Your task to perform on an android device: install app "DuckDuckGo Privacy Browser" Image 0: 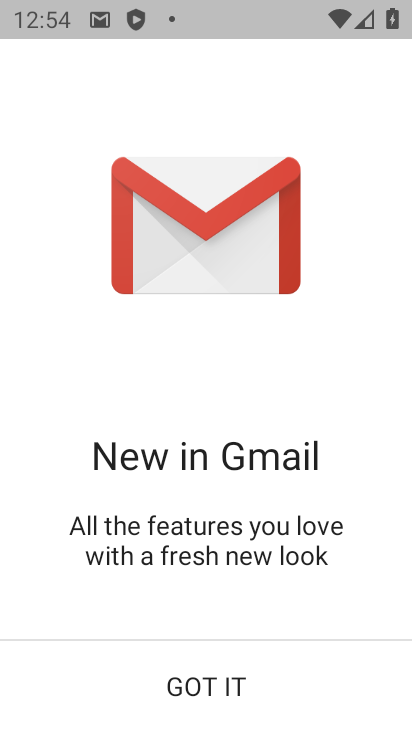
Step 0: press home button
Your task to perform on an android device: install app "DuckDuckGo Privacy Browser" Image 1: 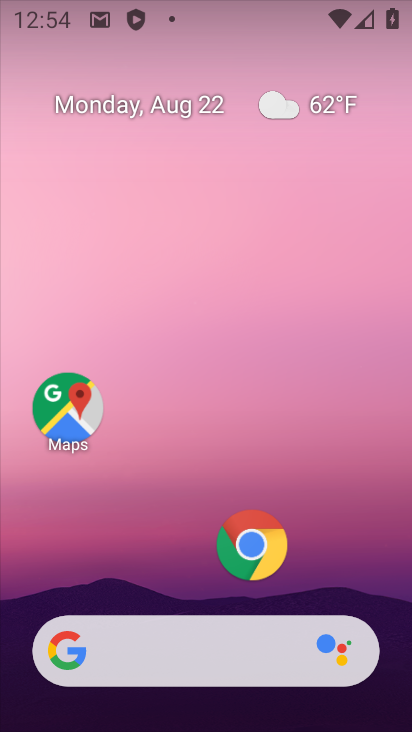
Step 1: drag from (123, 494) to (250, 29)
Your task to perform on an android device: install app "DuckDuckGo Privacy Browser" Image 2: 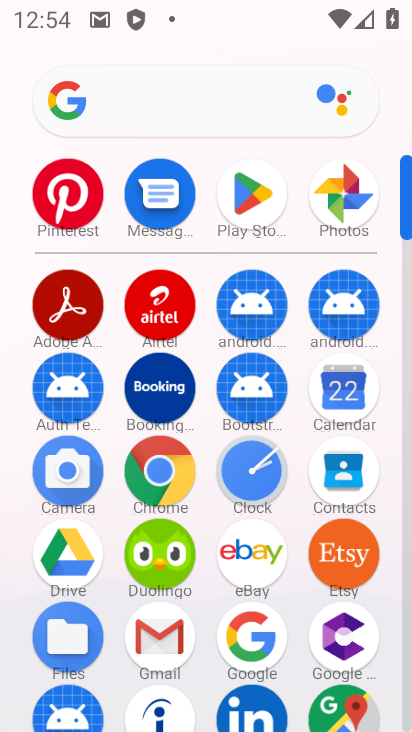
Step 2: click (253, 194)
Your task to perform on an android device: install app "DuckDuckGo Privacy Browser" Image 3: 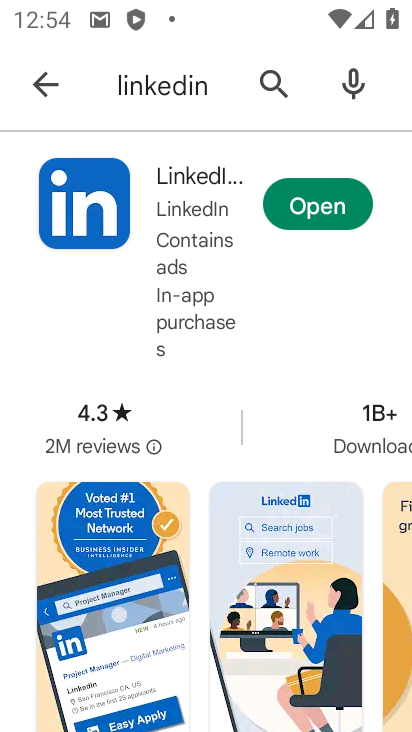
Step 3: click (265, 86)
Your task to perform on an android device: install app "DuckDuckGo Privacy Browser" Image 4: 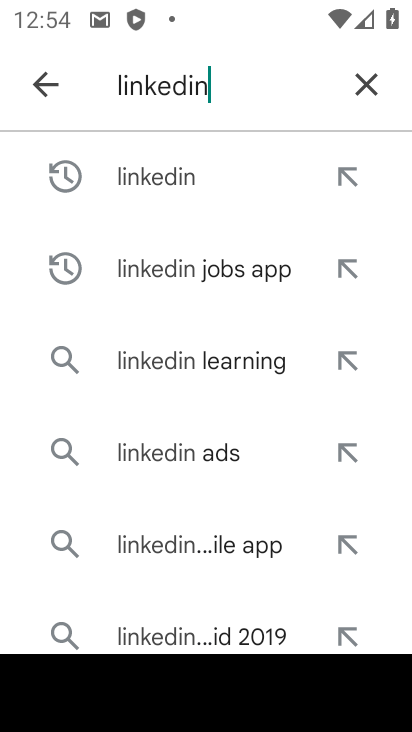
Step 4: click (369, 83)
Your task to perform on an android device: install app "DuckDuckGo Privacy Browser" Image 5: 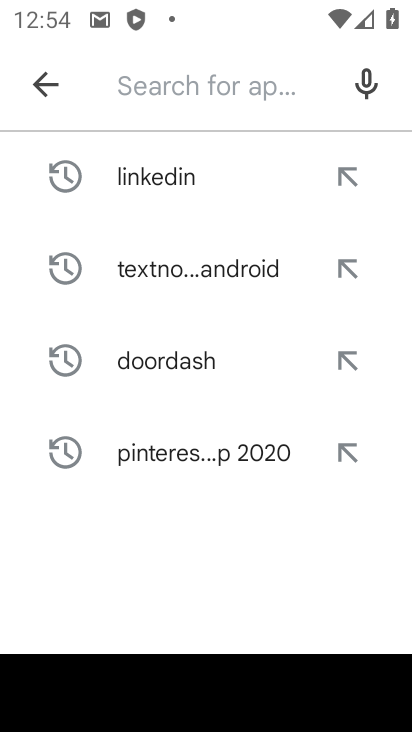
Step 5: click (154, 70)
Your task to perform on an android device: install app "DuckDuckGo Privacy Browser" Image 6: 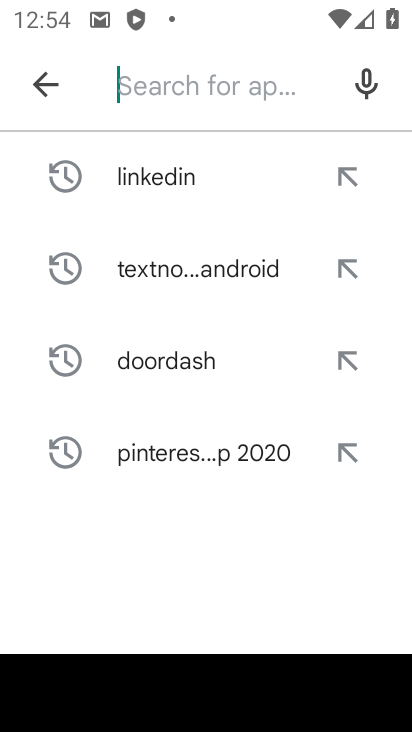
Step 6: type "DuckDuckGo Privacy Browser"
Your task to perform on an android device: install app "DuckDuckGo Privacy Browser" Image 7: 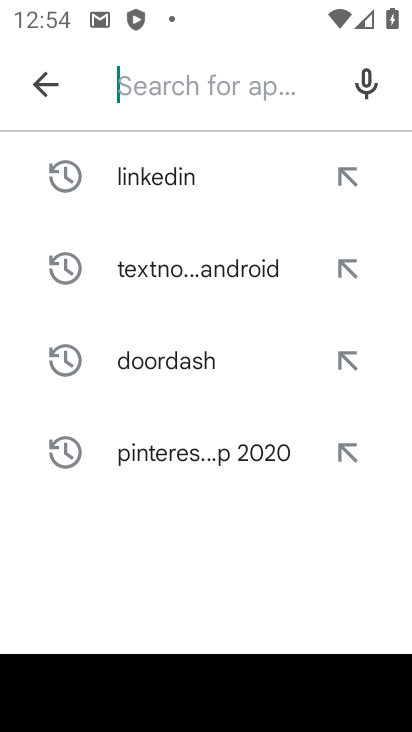
Step 7: click (276, 616)
Your task to perform on an android device: install app "DuckDuckGo Privacy Browser" Image 8: 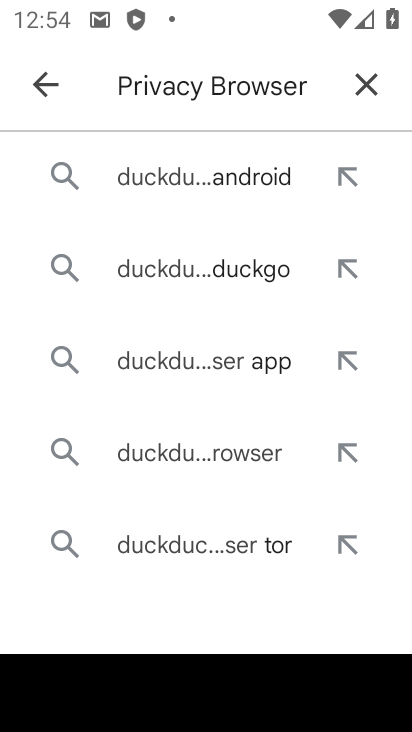
Step 8: click (142, 175)
Your task to perform on an android device: install app "DuckDuckGo Privacy Browser" Image 9: 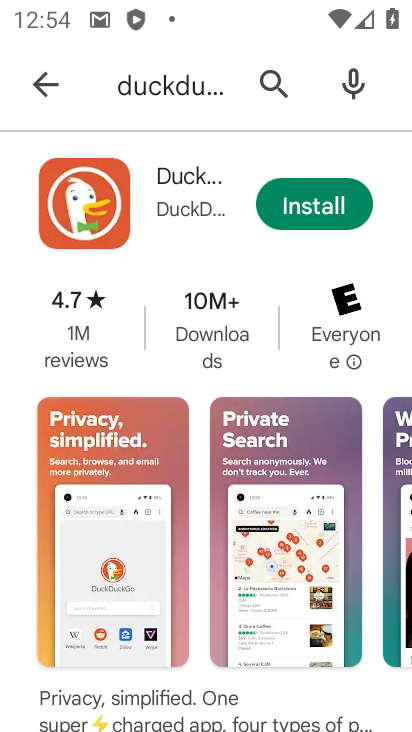
Step 9: click (322, 190)
Your task to perform on an android device: install app "DuckDuckGo Privacy Browser" Image 10: 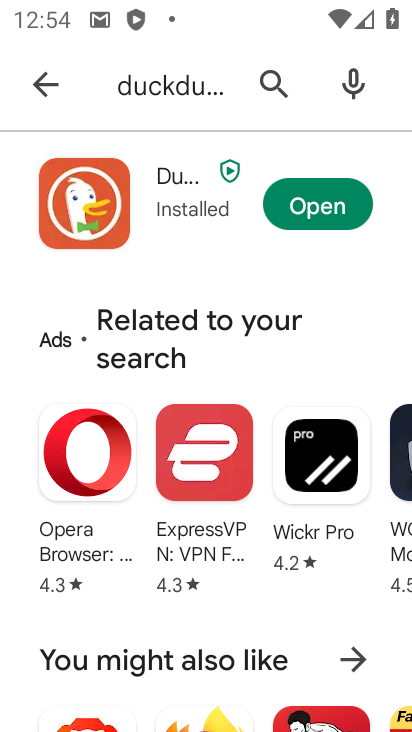
Step 10: click (318, 214)
Your task to perform on an android device: install app "DuckDuckGo Privacy Browser" Image 11: 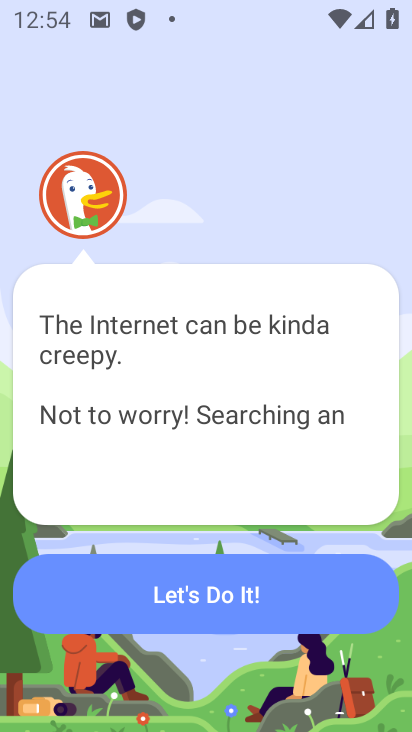
Step 11: task complete